Your task to perform on an android device: open a new tab in the chrome app Image 0: 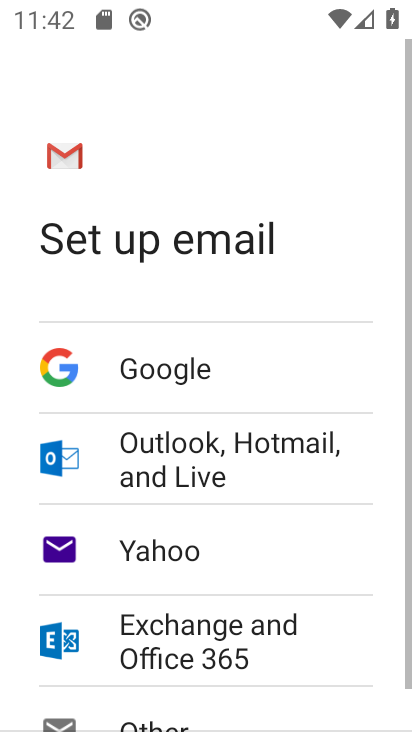
Step 0: press home button
Your task to perform on an android device: open a new tab in the chrome app Image 1: 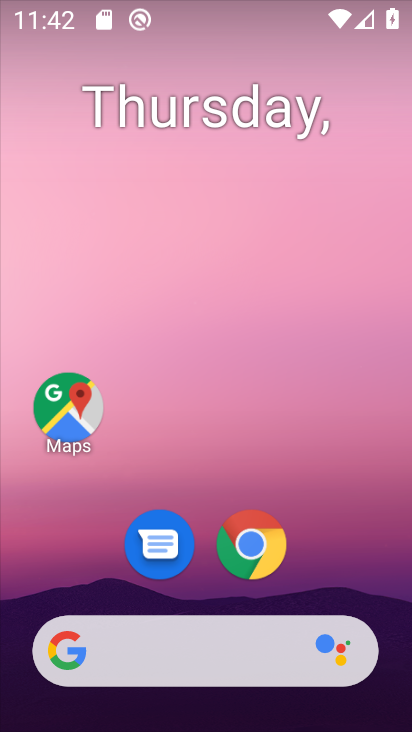
Step 1: drag from (188, 599) to (349, 81)
Your task to perform on an android device: open a new tab in the chrome app Image 2: 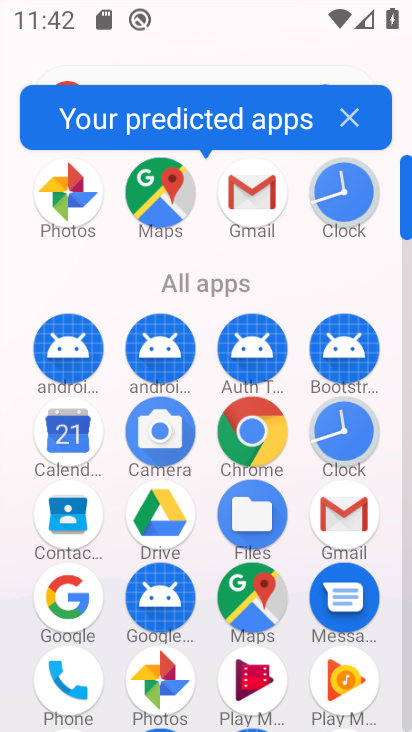
Step 2: click (256, 441)
Your task to perform on an android device: open a new tab in the chrome app Image 3: 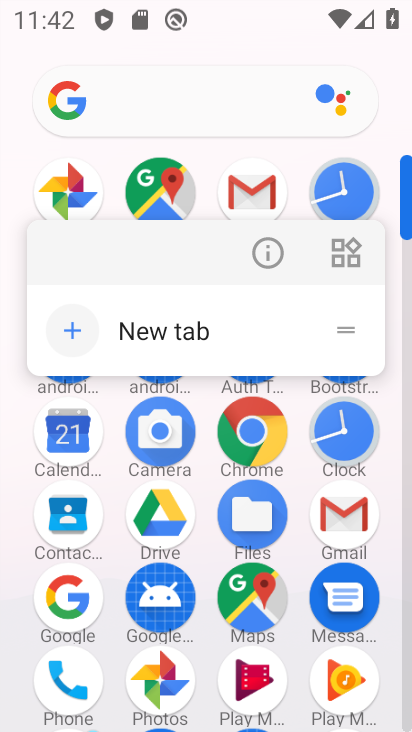
Step 3: click (252, 448)
Your task to perform on an android device: open a new tab in the chrome app Image 4: 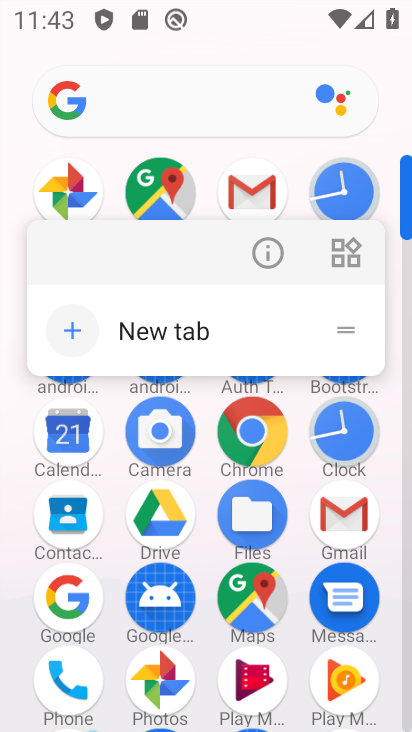
Step 4: click (252, 448)
Your task to perform on an android device: open a new tab in the chrome app Image 5: 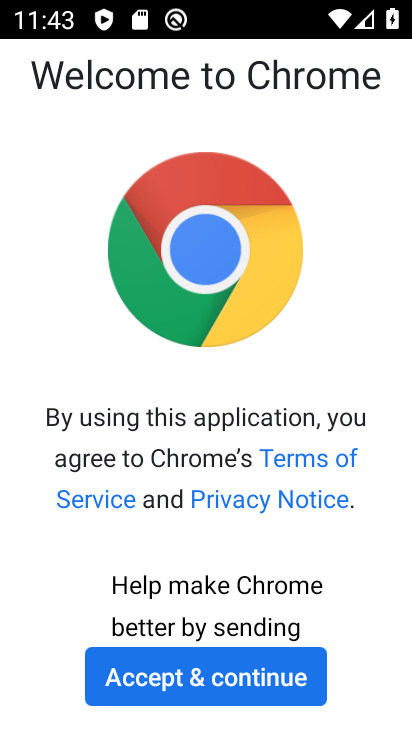
Step 5: click (207, 686)
Your task to perform on an android device: open a new tab in the chrome app Image 6: 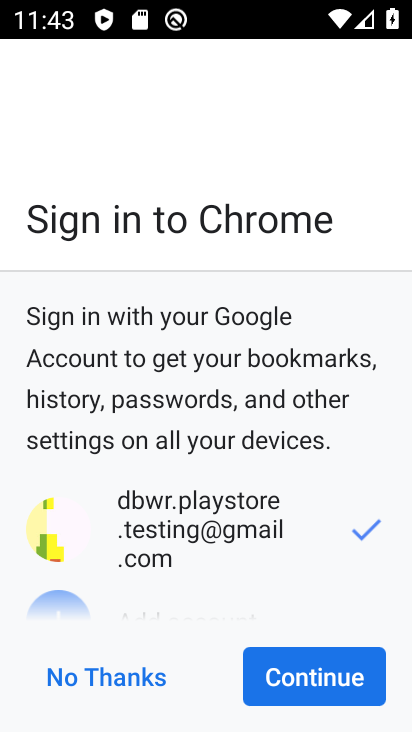
Step 6: click (277, 672)
Your task to perform on an android device: open a new tab in the chrome app Image 7: 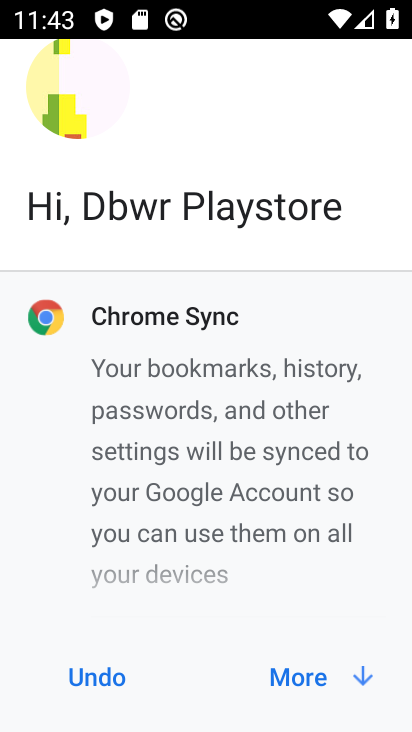
Step 7: click (313, 674)
Your task to perform on an android device: open a new tab in the chrome app Image 8: 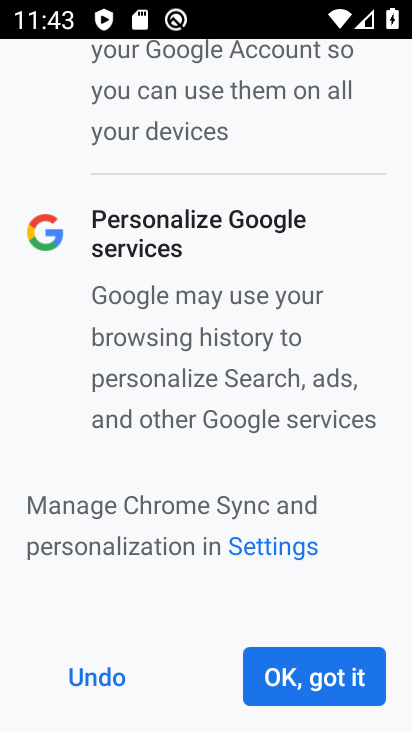
Step 8: click (344, 678)
Your task to perform on an android device: open a new tab in the chrome app Image 9: 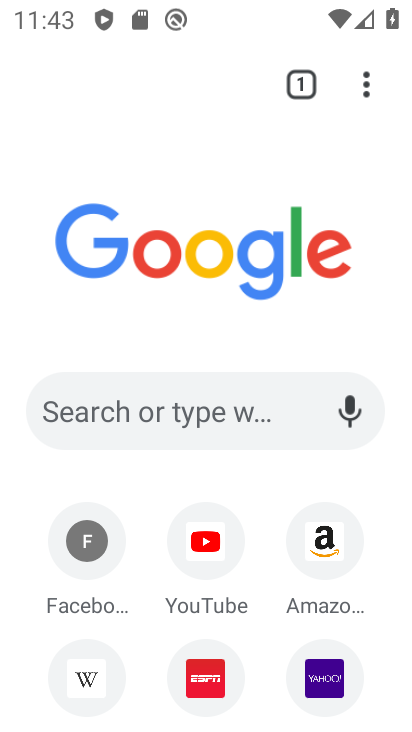
Step 9: click (304, 90)
Your task to perform on an android device: open a new tab in the chrome app Image 10: 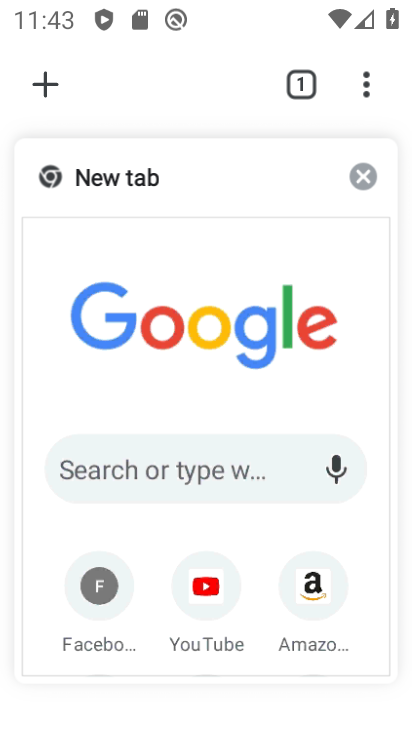
Step 10: click (46, 81)
Your task to perform on an android device: open a new tab in the chrome app Image 11: 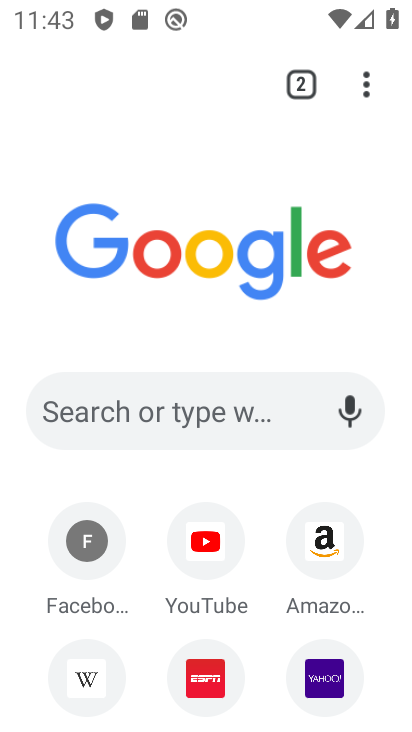
Step 11: task complete